Your task to perform on an android device: Go to Google Image 0: 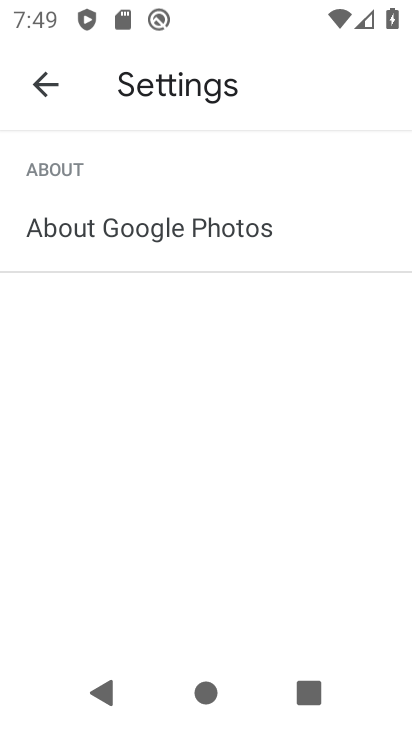
Step 0: press home button
Your task to perform on an android device: Go to Google Image 1: 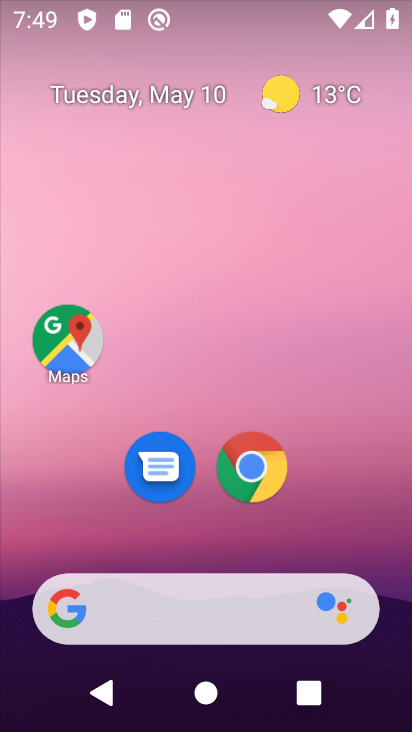
Step 1: drag from (241, 571) to (224, 75)
Your task to perform on an android device: Go to Google Image 2: 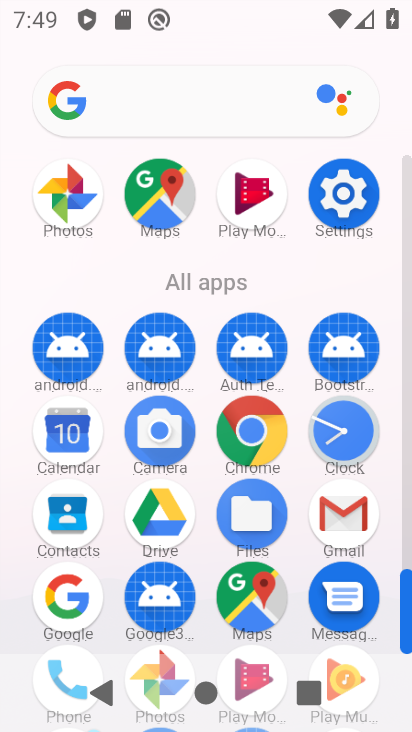
Step 2: drag from (133, 584) to (144, 190)
Your task to perform on an android device: Go to Google Image 3: 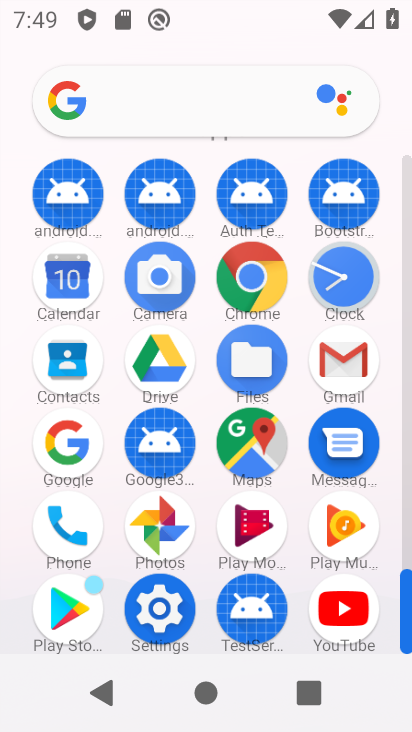
Step 3: click (76, 440)
Your task to perform on an android device: Go to Google Image 4: 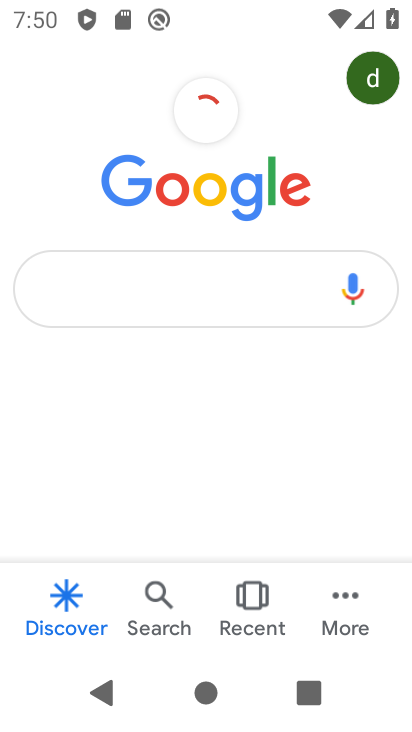
Step 4: task complete